Your task to perform on an android device: all mails in gmail Image 0: 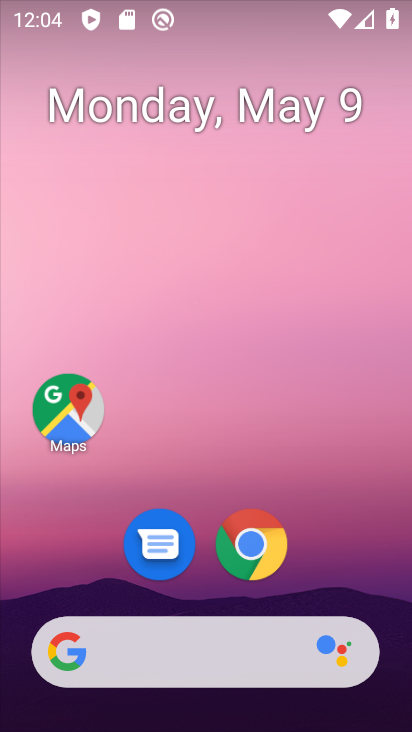
Step 0: drag from (323, 531) to (314, 73)
Your task to perform on an android device: all mails in gmail Image 1: 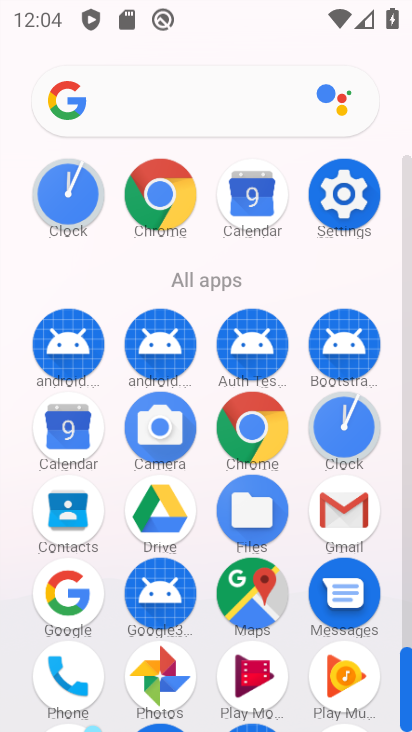
Step 1: click (374, 510)
Your task to perform on an android device: all mails in gmail Image 2: 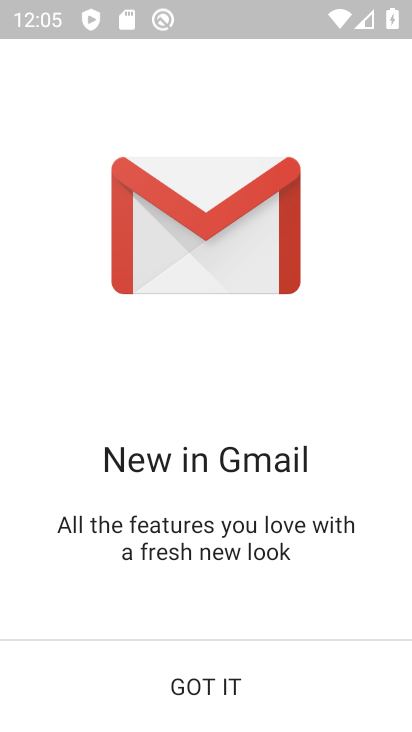
Step 2: click (200, 667)
Your task to perform on an android device: all mails in gmail Image 3: 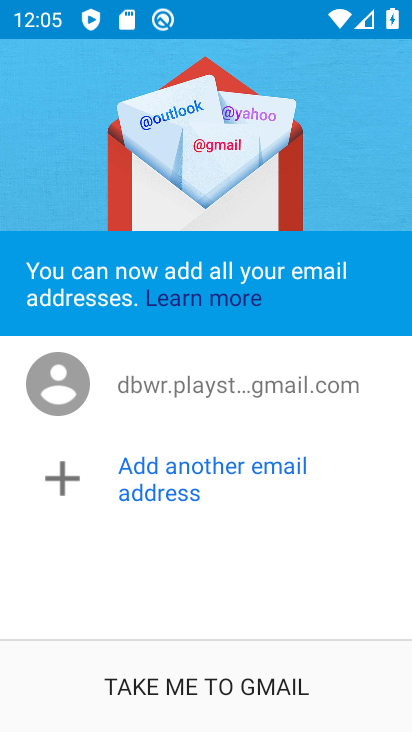
Step 3: click (211, 690)
Your task to perform on an android device: all mails in gmail Image 4: 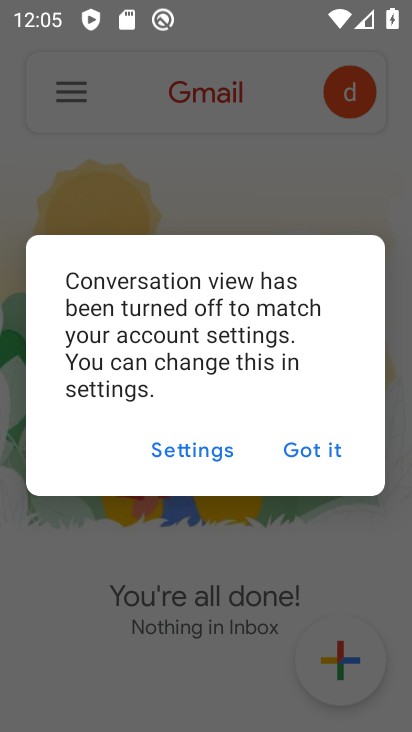
Step 4: click (324, 447)
Your task to perform on an android device: all mails in gmail Image 5: 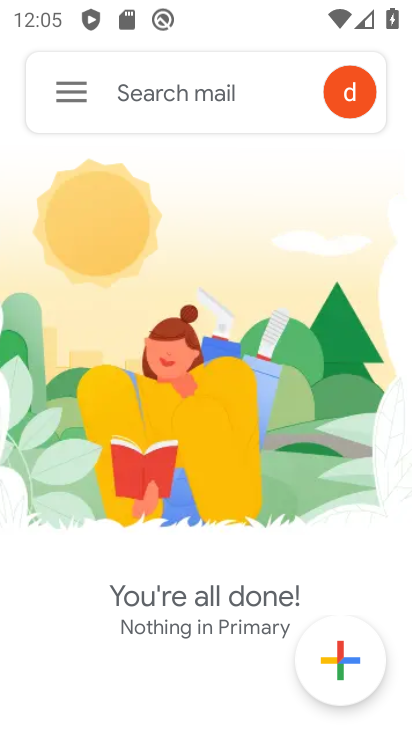
Step 5: click (82, 101)
Your task to perform on an android device: all mails in gmail Image 6: 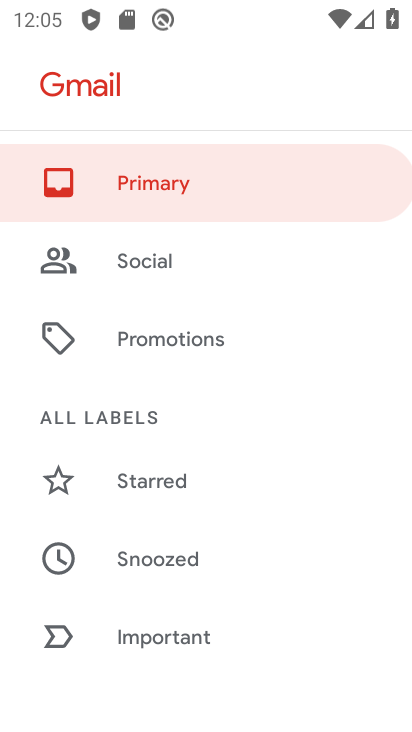
Step 6: drag from (184, 590) to (248, 116)
Your task to perform on an android device: all mails in gmail Image 7: 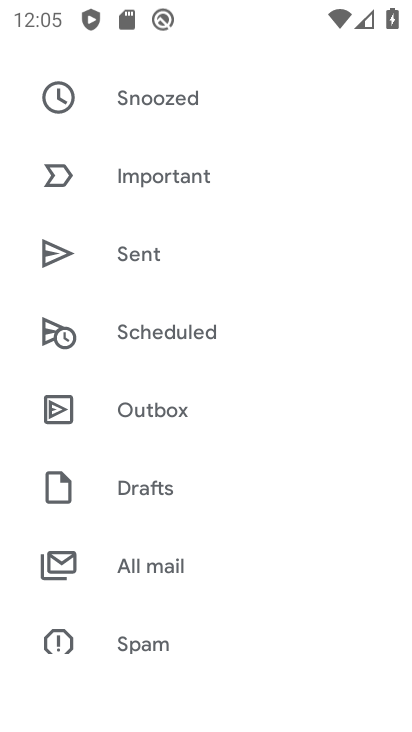
Step 7: click (168, 557)
Your task to perform on an android device: all mails in gmail Image 8: 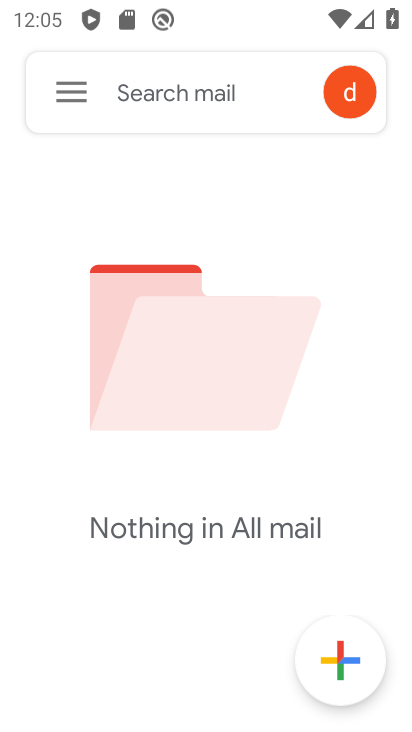
Step 8: task complete